Your task to perform on an android device: Go to Android settings Image 0: 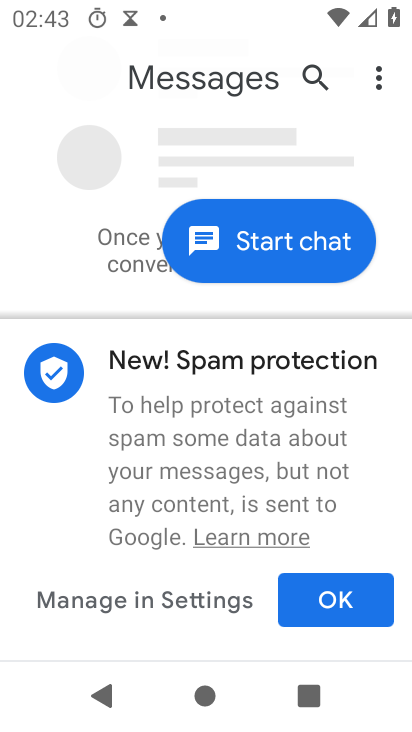
Step 0: press home button
Your task to perform on an android device: Go to Android settings Image 1: 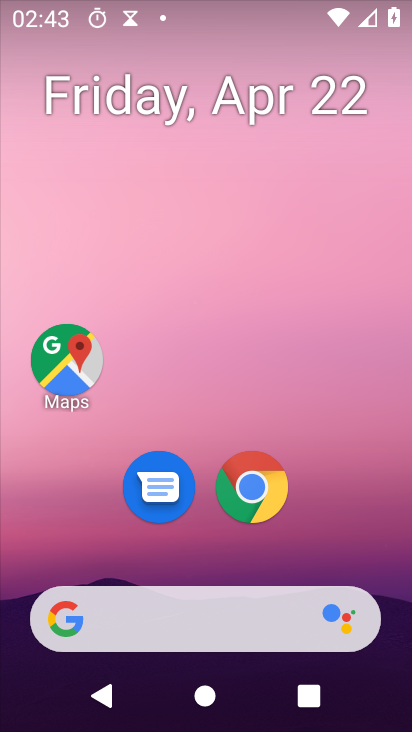
Step 1: drag from (134, 626) to (224, 177)
Your task to perform on an android device: Go to Android settings Image 2: 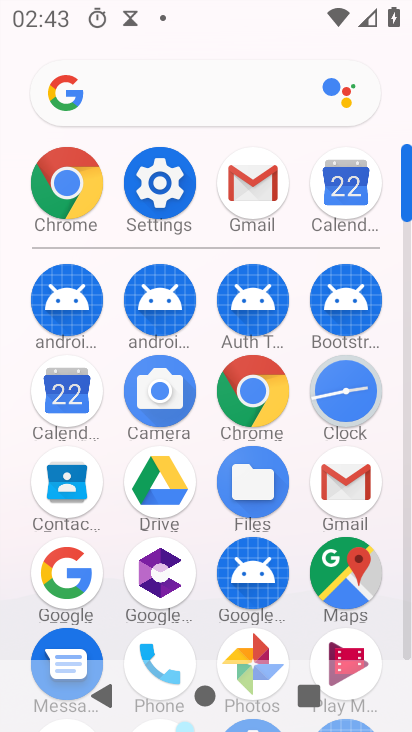
Step 2: click (167, 198)
Your task to perform on an android device: Go to Android settings Image 3: 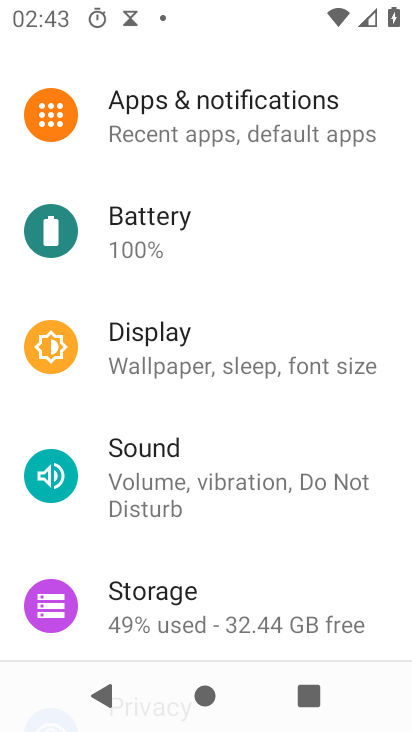
Step 3: task complete